Your task to perform on an android device: Do I have any events tomorrow? Image 0: 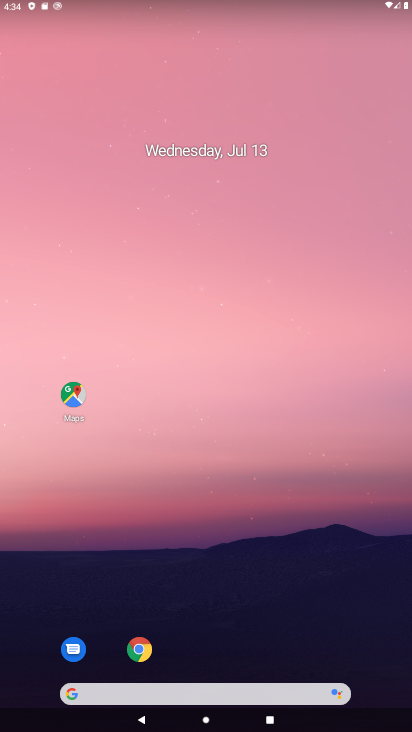
Step 0: drag from (299, 633) to (303, 30)
Your task to perform on an android device: Do I have any events tomorrow? Image 1: 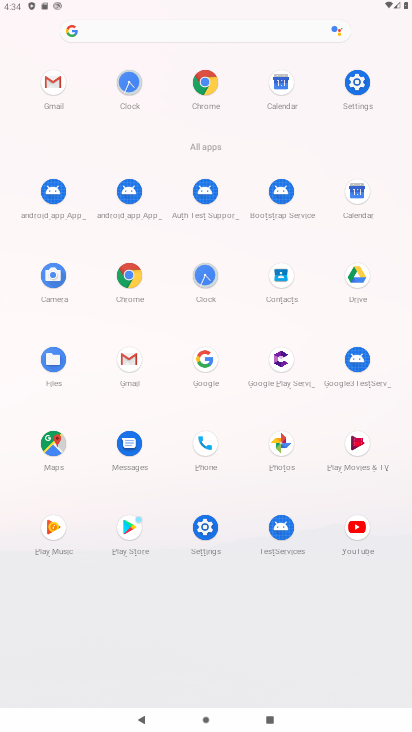
Step 1: click (364, 201)
Your task to perform on an android device: Do I have any events tomorrow? Image 2: 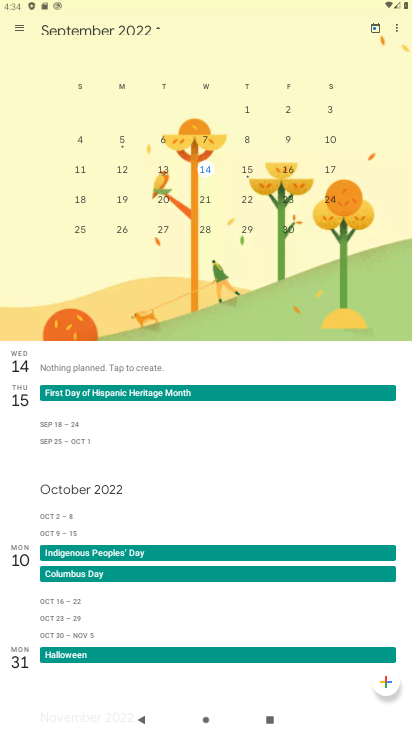
Step 2: click (108, 31)
Your task to perform on an android device: Do I have any events tomorrow? Image 3: 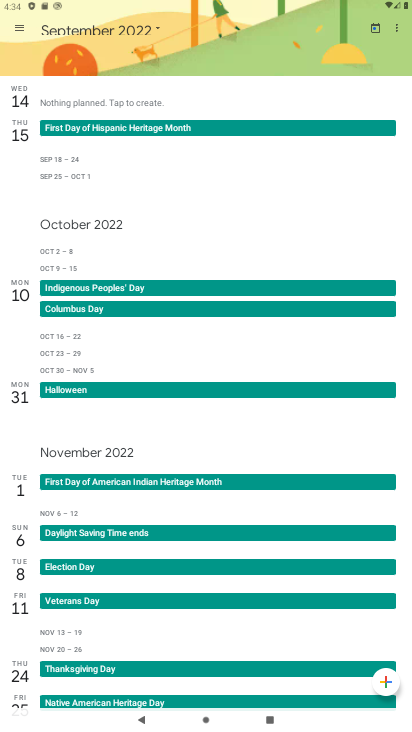
Step 3: click (108, 30)
Your task to perform on an android device: Do I have any events tomorrow? Image 4: 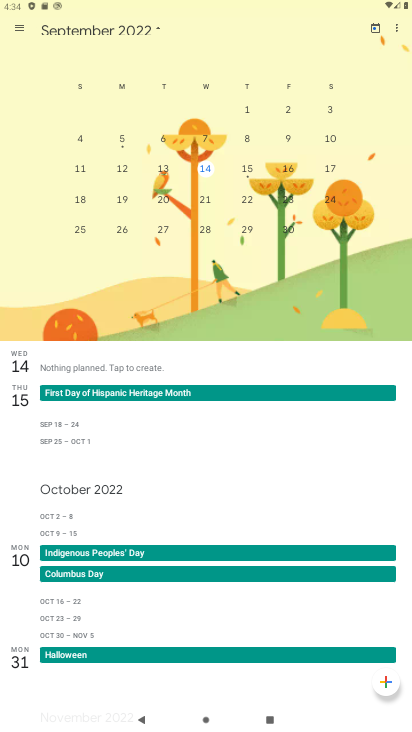
Step 4: click (239, 167)
Your task to perform on an android device: Do I have any events tomorrow? Image 5: 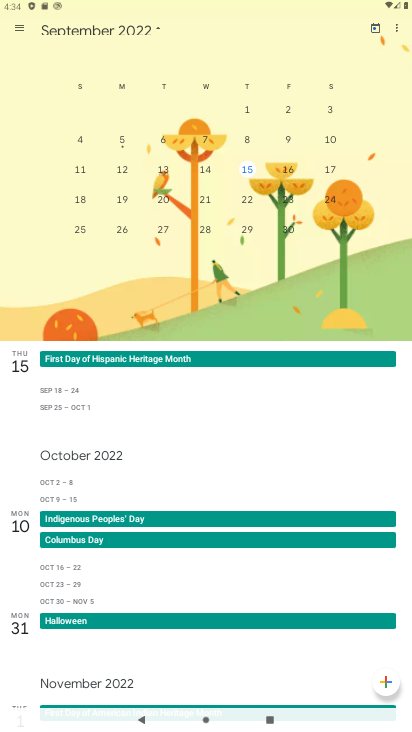
Step 5: task complete